Your task to perform on an android device: Search for sushi restaurants on Maps Image 0: 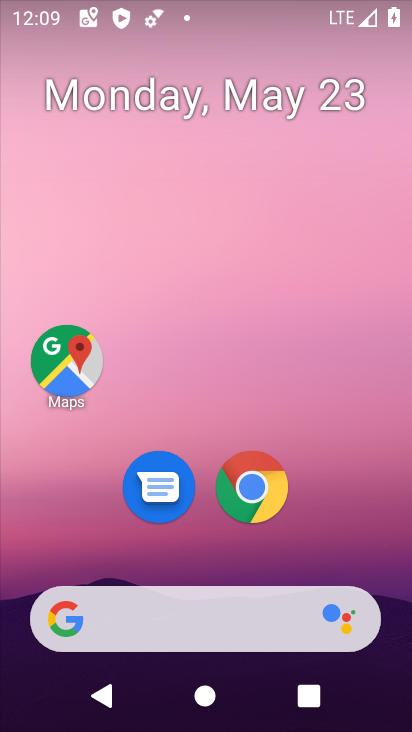
Step 0: click (64, 347)
Your task to perform on an android device: Search for sushi restaurants on Maps Image 1: 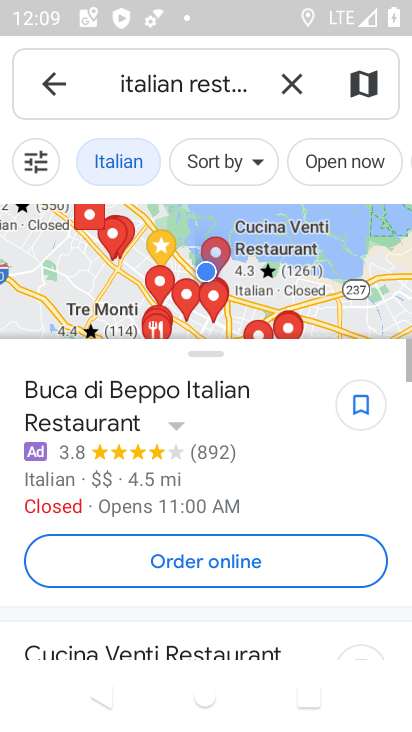
Step 1: click (297, 85)
Your task to perform on an android device: Search for sushi restaurants on Maps Image 2: 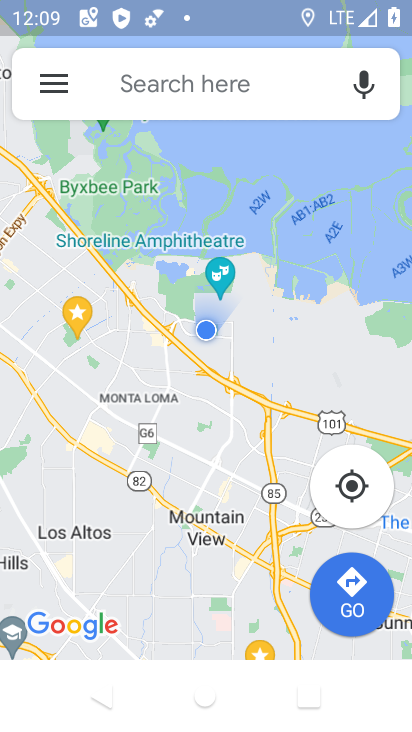
Step 2: click (188, 68)
Your task to perform on an android device: Search for sushi restaurants on Maps Image 3: 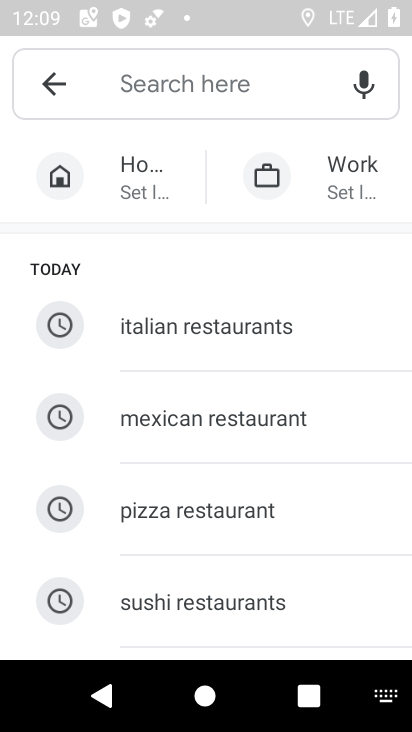
Step 3: click (220, 599)
Your task to perform on an android device: Search for sushi restaurants on Maps Image 4: 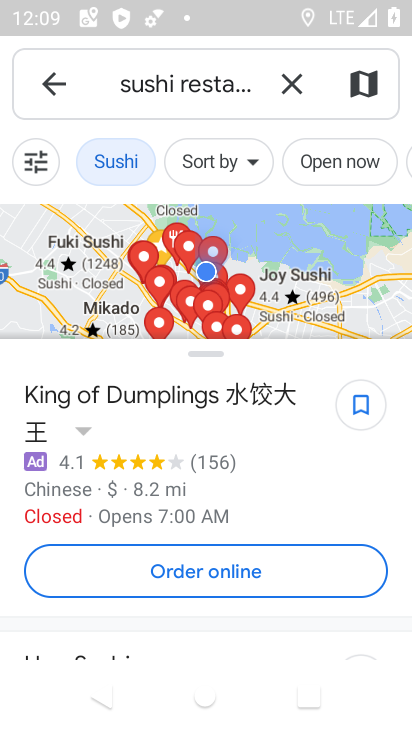
Step 4: task complete